Your task to perform on an android device: set an alarm Image 0: 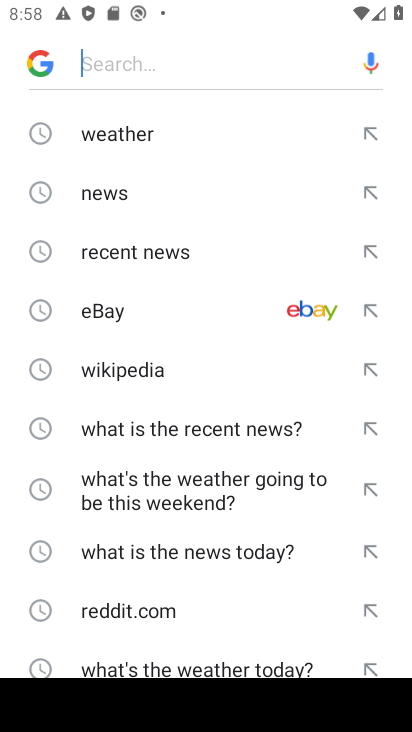
Step 0: press home button
Your task to perform on an android device: set an alarm Image 1: 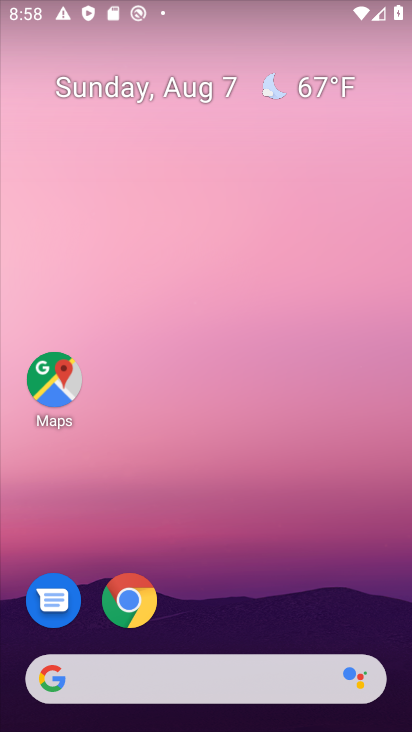
Step 1: drag from (200, 559) to (209, 80)
Your task to perform on an android device: set an alarm Image 2: 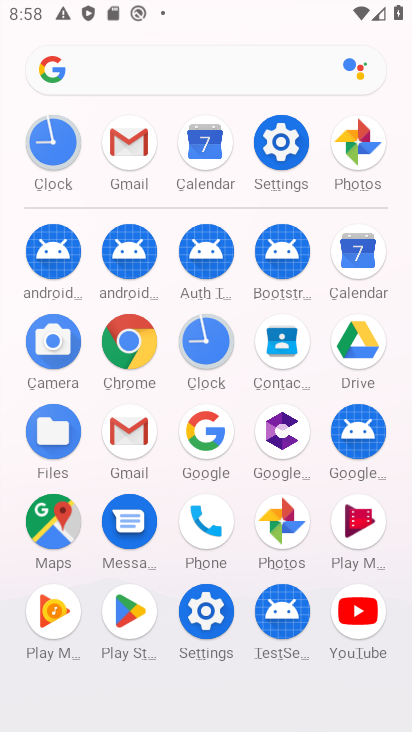
Step 2: click (48, 146)
Your task to perform on an android device: set an alarm Image 3: 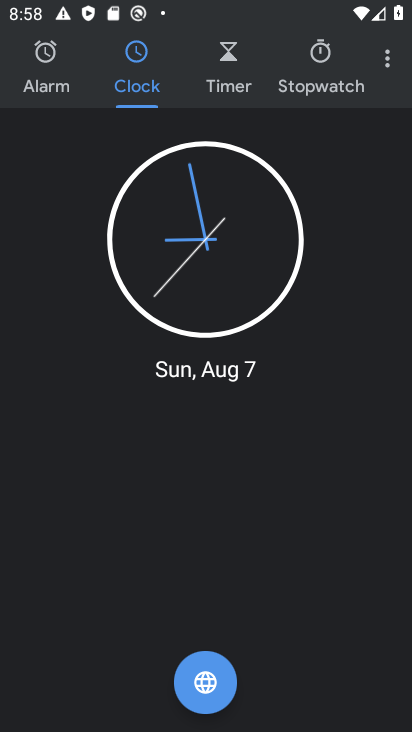
Step 3: click (48, 74)
Your task to perform on an android device: set an alarm Image 4: 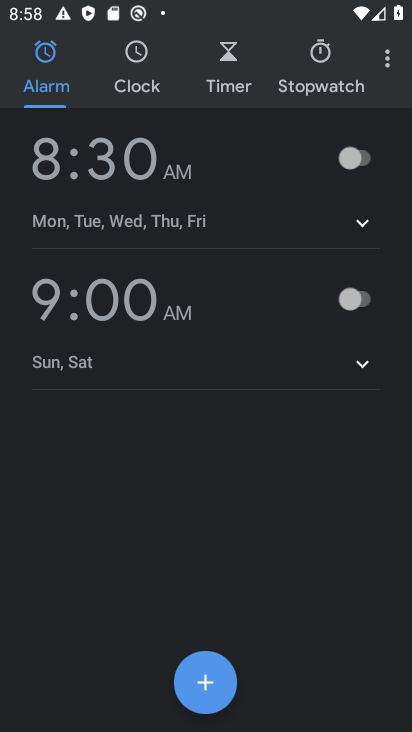
Step 4: click (365, 157)
Your task to perform on an android device: set an alarm Image 5: 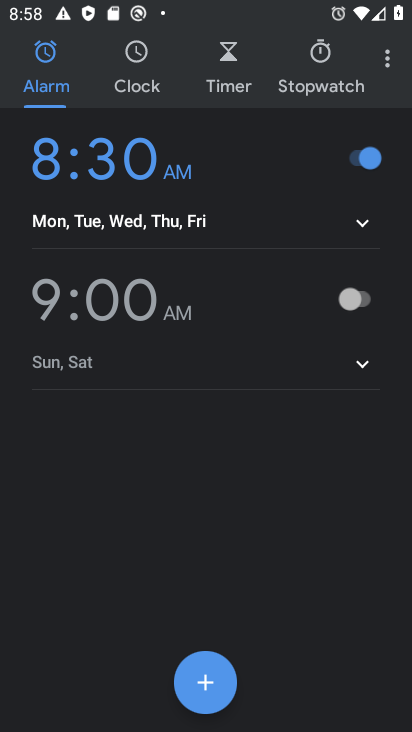
Step 5: task complete